Your task to perform on an android device: Empty the shopping cart on costco.com. Add "energizer triple a" to the cart on costco.com Image 0: 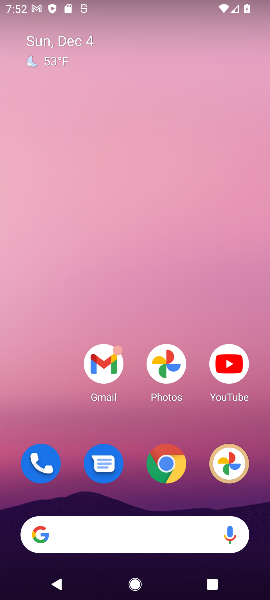
Step 0: click (133, 547)
Your task to perform on an android device: Empty the shopping cart on costco.com. Add "energizer triple a" to the cart on costco.com Image 1: 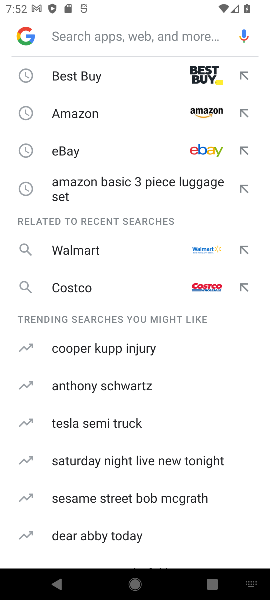
Step 1: click (86, 292)
Your task to perform on an android device: Empty the shopping cart on costco.com. Add "energizer triple a" to the cart on costco.com Image 2: 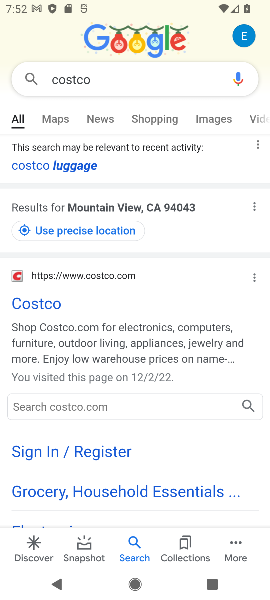
Step 2: click (49, 304)
Your task to perform on an android device: Empty the shopping cart on costco.com. Add "energizer triple a" to the cart on costco.com Image 3: 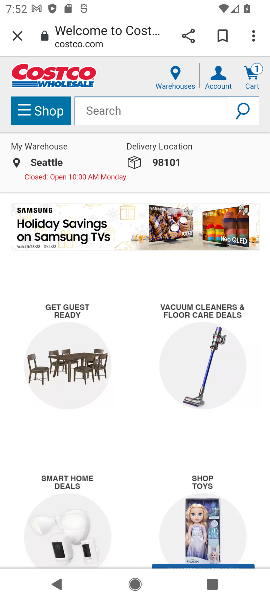
Step 3: click (153, 111)
Your task to perform on an android device: Empty the shopping cart on costco.com. Add "energizer triple a" to the cart on costco.com Image 4: 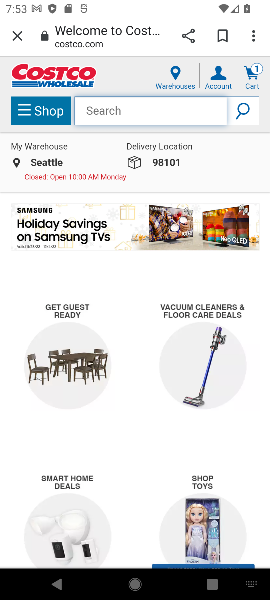
Step 4: type "energizer triple a"
Your task to perform on an android device: Empty the shopping cart on costco.com. Add "energizer triple a" to the cart on costco.com Image 5: 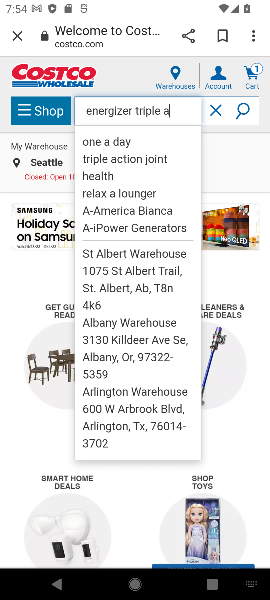
Step 5: click (243, 118)
Your task to perform on an android device: Empty the shopping cart on costco.com. Add "energizer triple a" to the cart on costco.com Image 6: 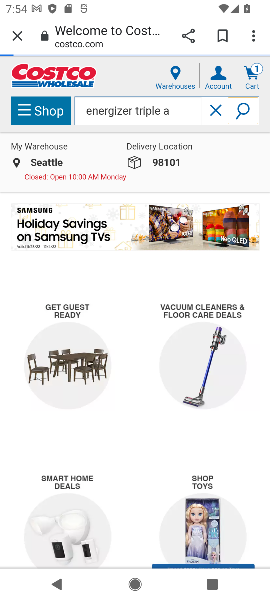
Step 6: task complete